Your task to perform on an android device: What's on my calendar today? Image 0: 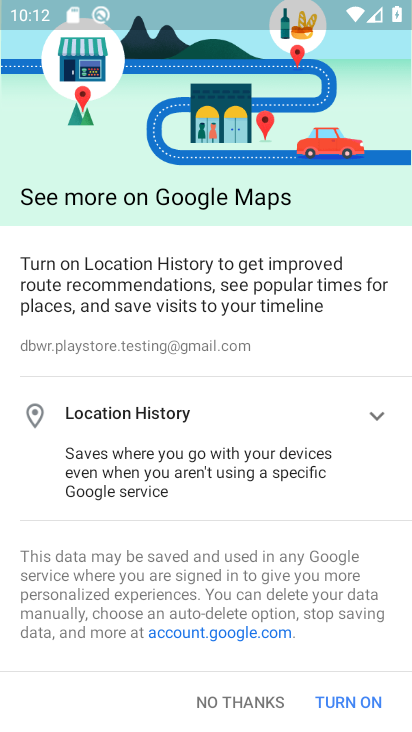
Step 0: press home button
Your task to perform on an android device: What's on my calendar today? Image 1: 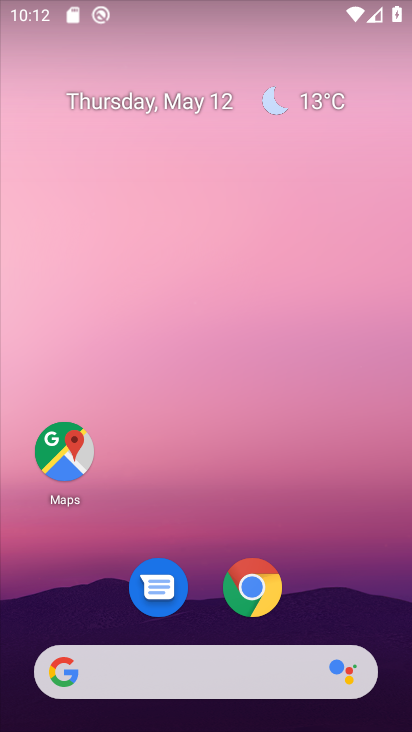
Step 1: drag from (195, 644) to (180, 157)
Your task to perform on an android device: What's on my calendar today? Image 2: 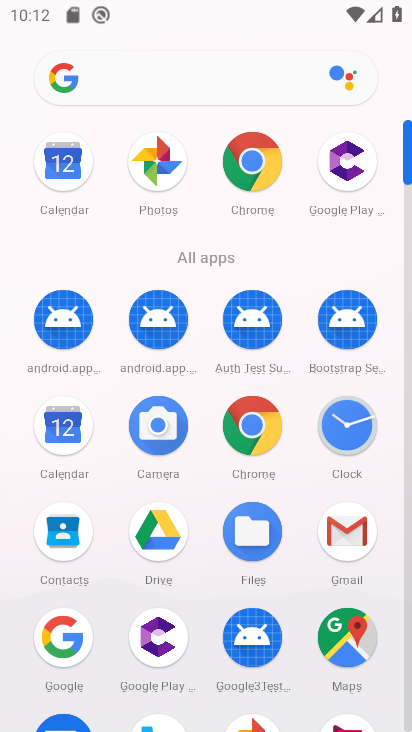
Step 2: click (42, 432)
Your task to perform on an android device: What's on my calendar today? Image 3: 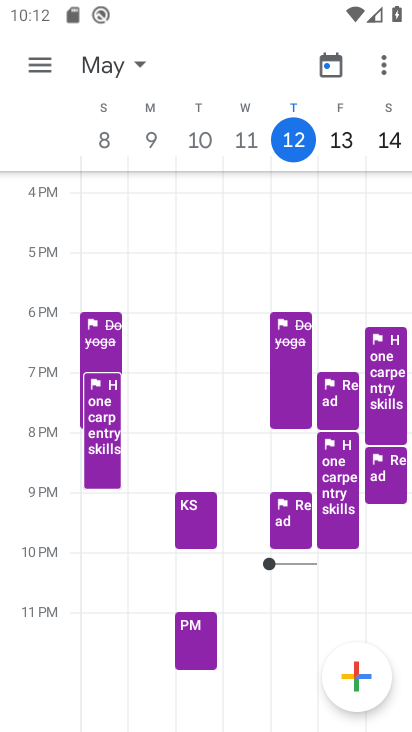
Step 3: click (44, 62)
Your task to perform on an android device: What's on my calendar today? Image 4: 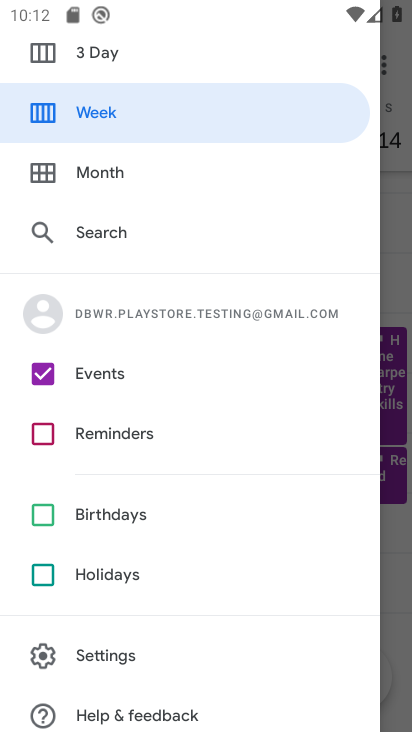
Step 4: drag from (118, 70) to (98, 308)
Your task to perform on an android device: What's on my calendar today? Image 5: 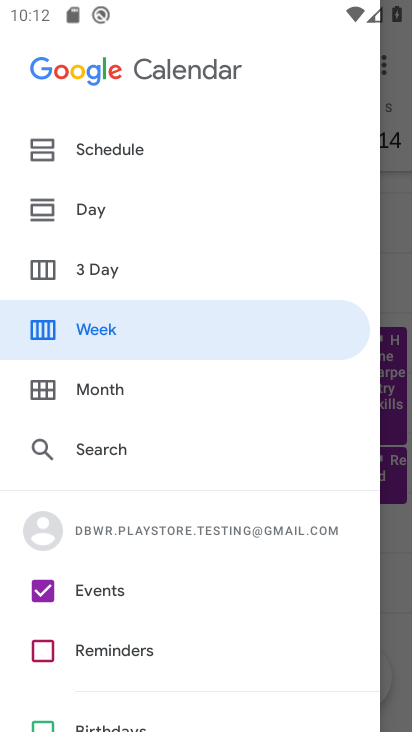
Step 5: click (98, 199)
Your task to perform on an android device: What's on my calendar today? Image 6: 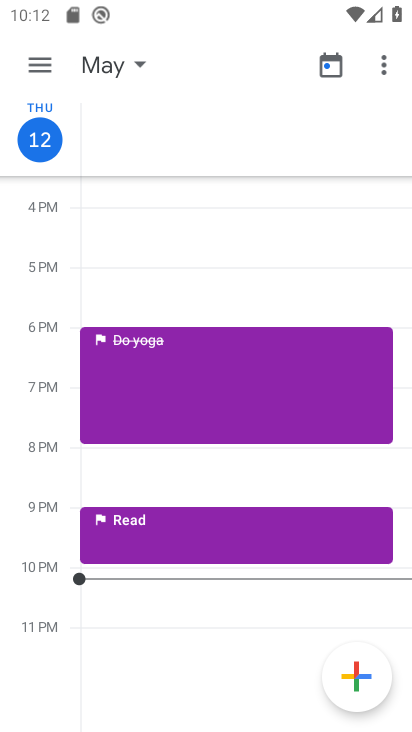
Step 6: task complete